Your task to perform on an android device: turn on priority inbox in the gmail app Image 0: 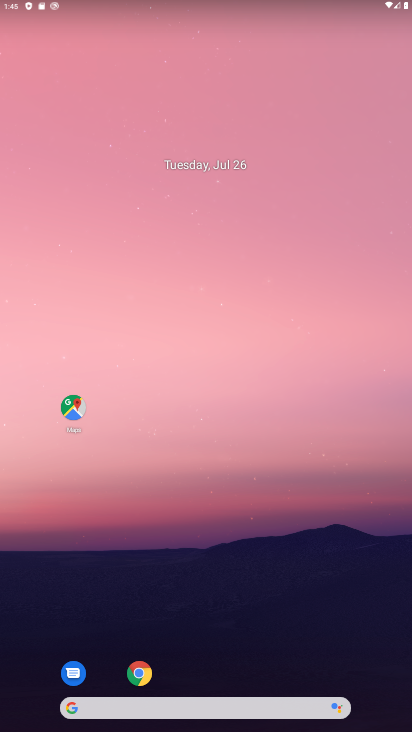
Step 0: drag from (305, 620) to (230, 246)
Your task to perform on an android device: turn on priority inbox in the gmail app Image 1: 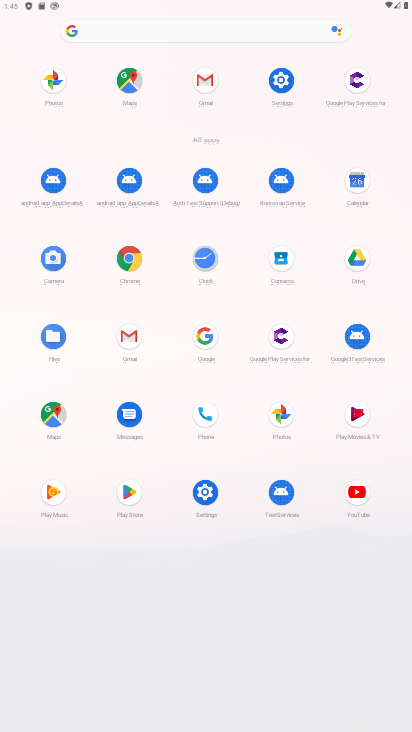
Step 1: click (125, 335)
Your task to perform on an android device: turn on priority inbox in the gmail app Image 2: 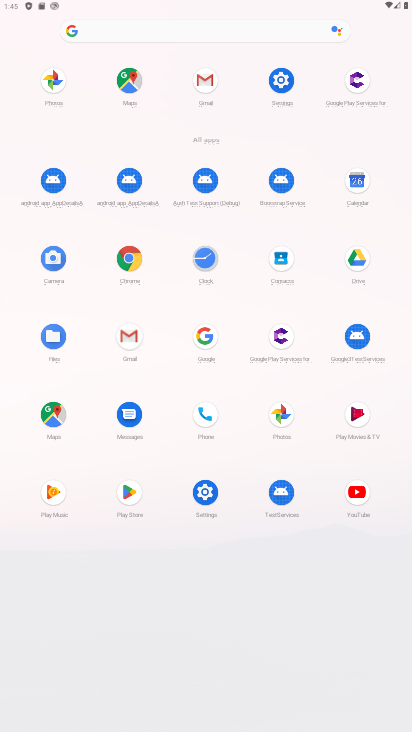
Step 2: click (120, 335)
Your task to perform on an android device: turn on priority inbox in the gmail app Image 3: 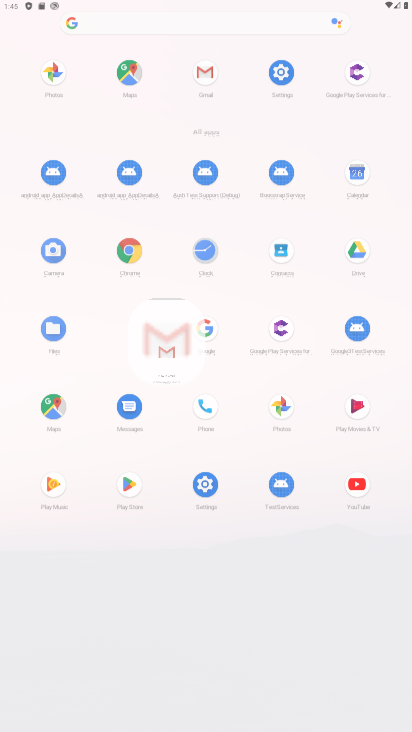
Step 3: click (118, 336)
Your task to perform on an android device: turn on priority inbox in the gmail app Image 4: 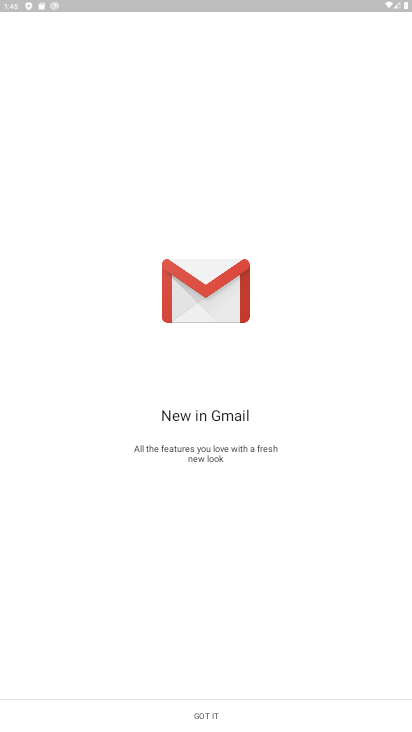
Step 4: click (209, 713)
Your task to perform on an android device: turn on priority inbox in the gmail app Image 5: 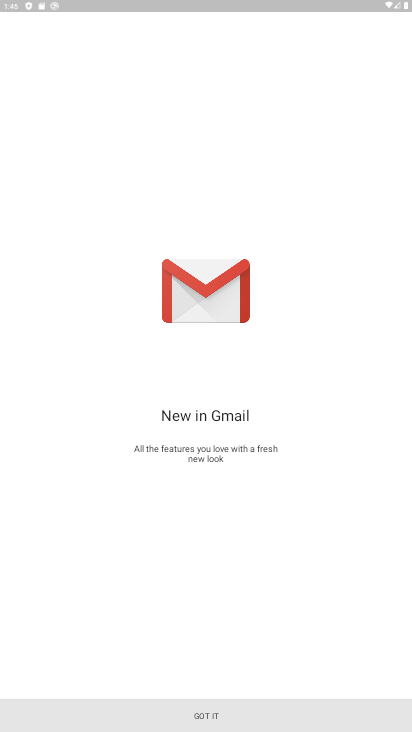
Step 5: click (209, 713)
Your task to perform on an android device: turn on priority inbox in the gmail app Image 6: 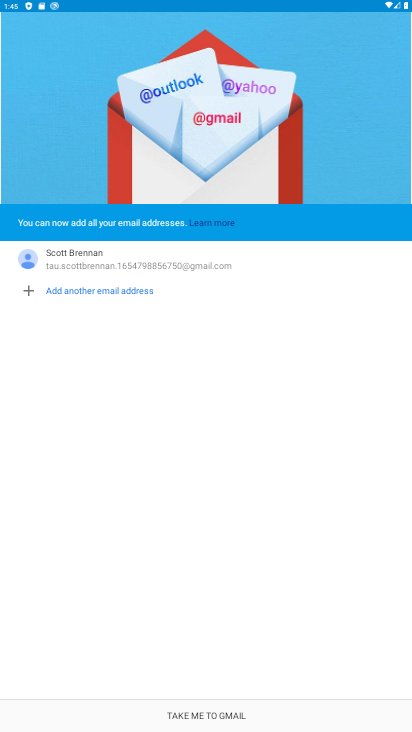
Step 6: click (225, 715)
Your task to perform on an android device: turn on priority inbox in the gmail app Image 7: 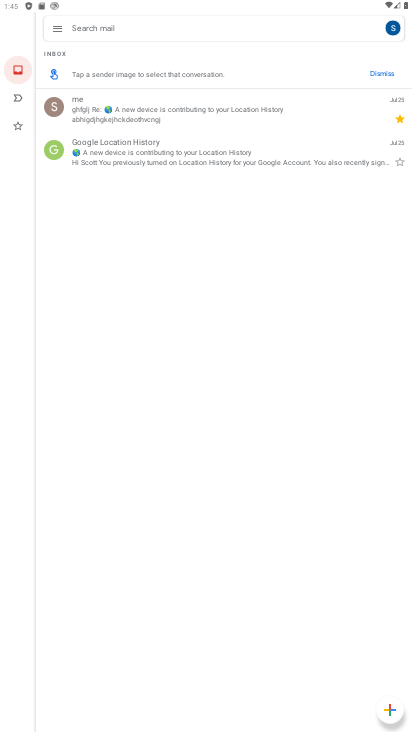
Step 7: click (56, 30)
Your task to perform on an android device: turn on priority inbox in the gmail app Image 8: 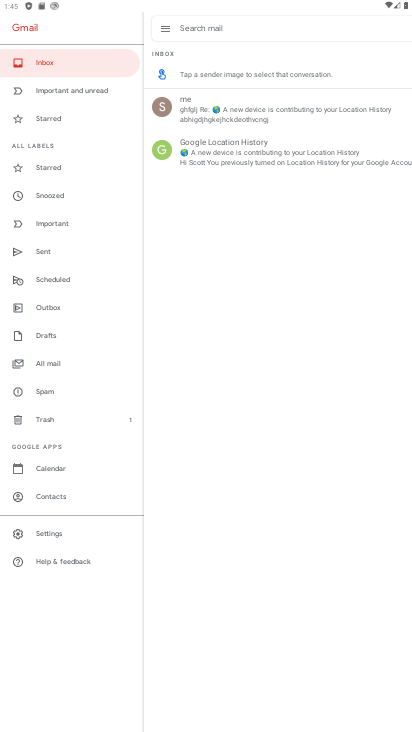
Step 8: click (57, 528)
Your task to perform on an android device: turn on priority inbox in the gmail app Image 9: 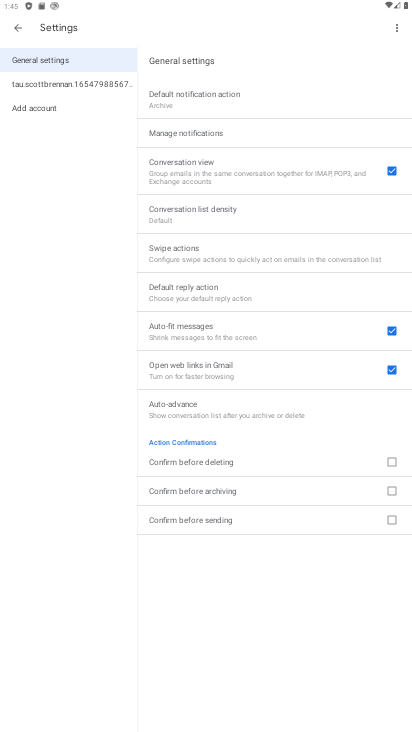
Step 9: click (59, 77)
Your task to perform on an android device: turn on priority inbox in the gmail app Image 10: 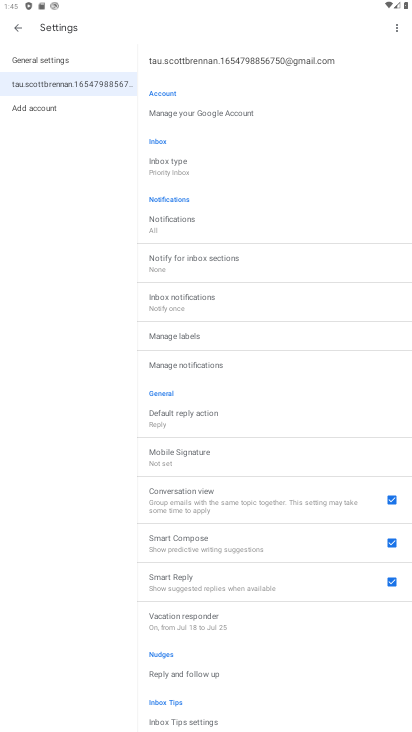
Step 10: click (170, 164)
Your task to perform on an android device: turn on priority inbox in the gmail app Image 11: 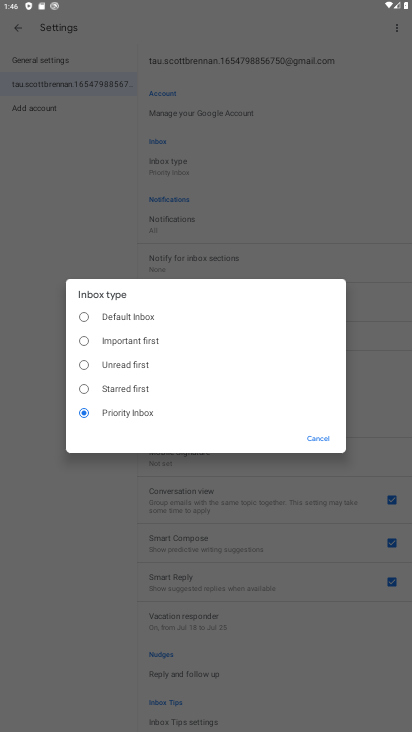
Step 11: click (316, 443)
Your task to perform on an android device: turn on priority inbox in the gmail app Image 12: 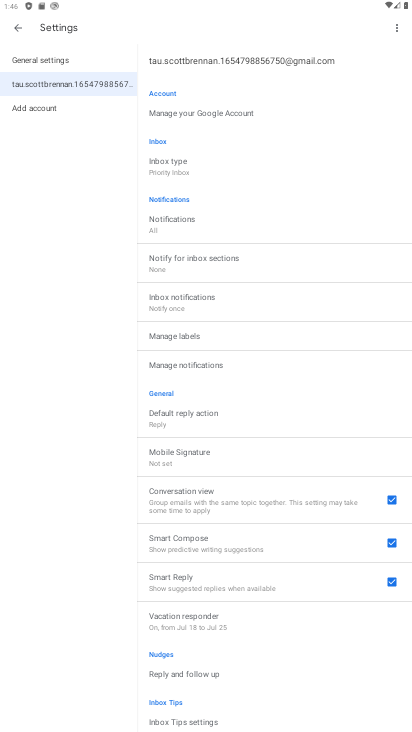
Step 12: task complete